Your task to perform on an android device: What is the recent news? Image 0: 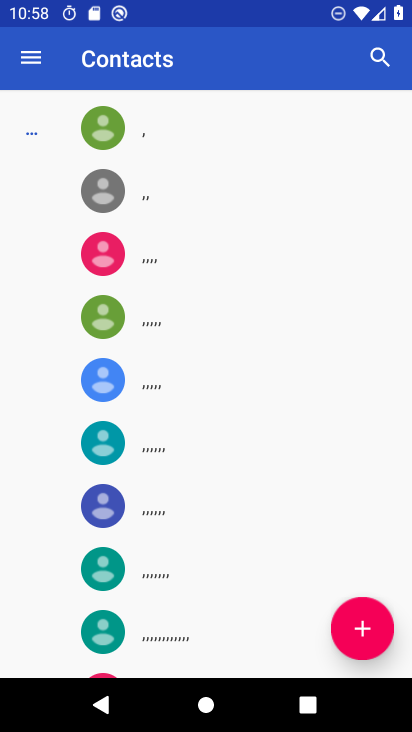
Step 0: press home button
Your task to perform on an android device: What is the recent news? Image 1: 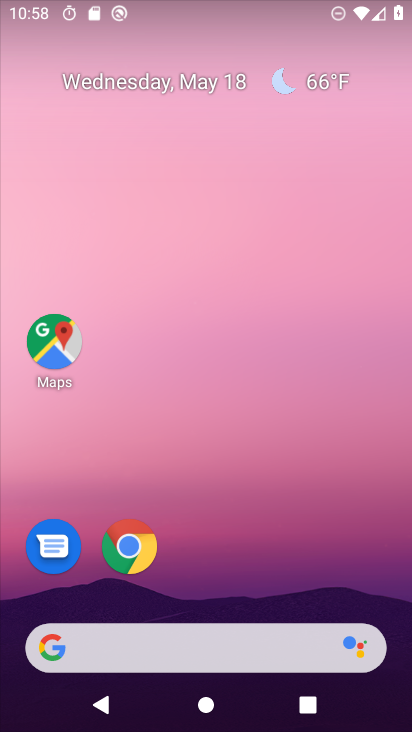
Step 1: click (161, 642)
Your task to perform on an android device: What is the recent news? Image 2: 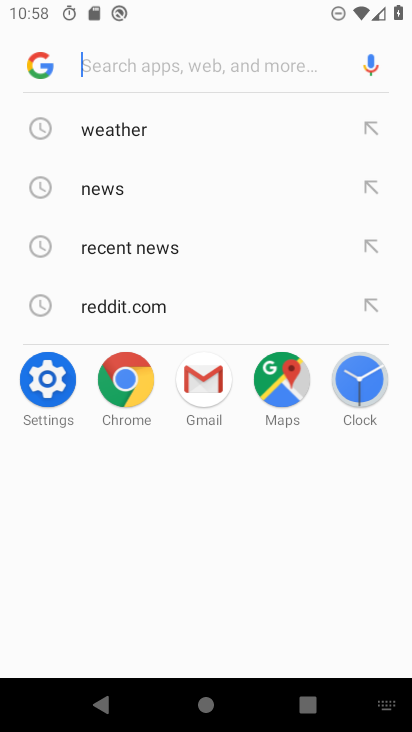
Step 2: click (111, 199)
Your task to perform on an android device: What is the recent news? Image 3: 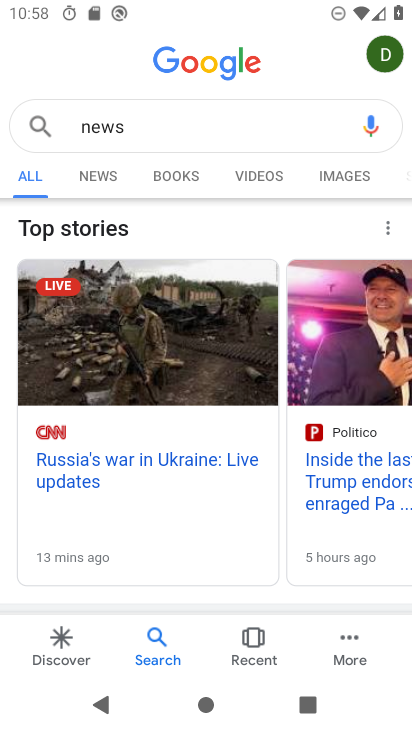
Step 3: task complete